Your task to perform on an android device: Open calendar and show me the fourth week of next month Image 0: 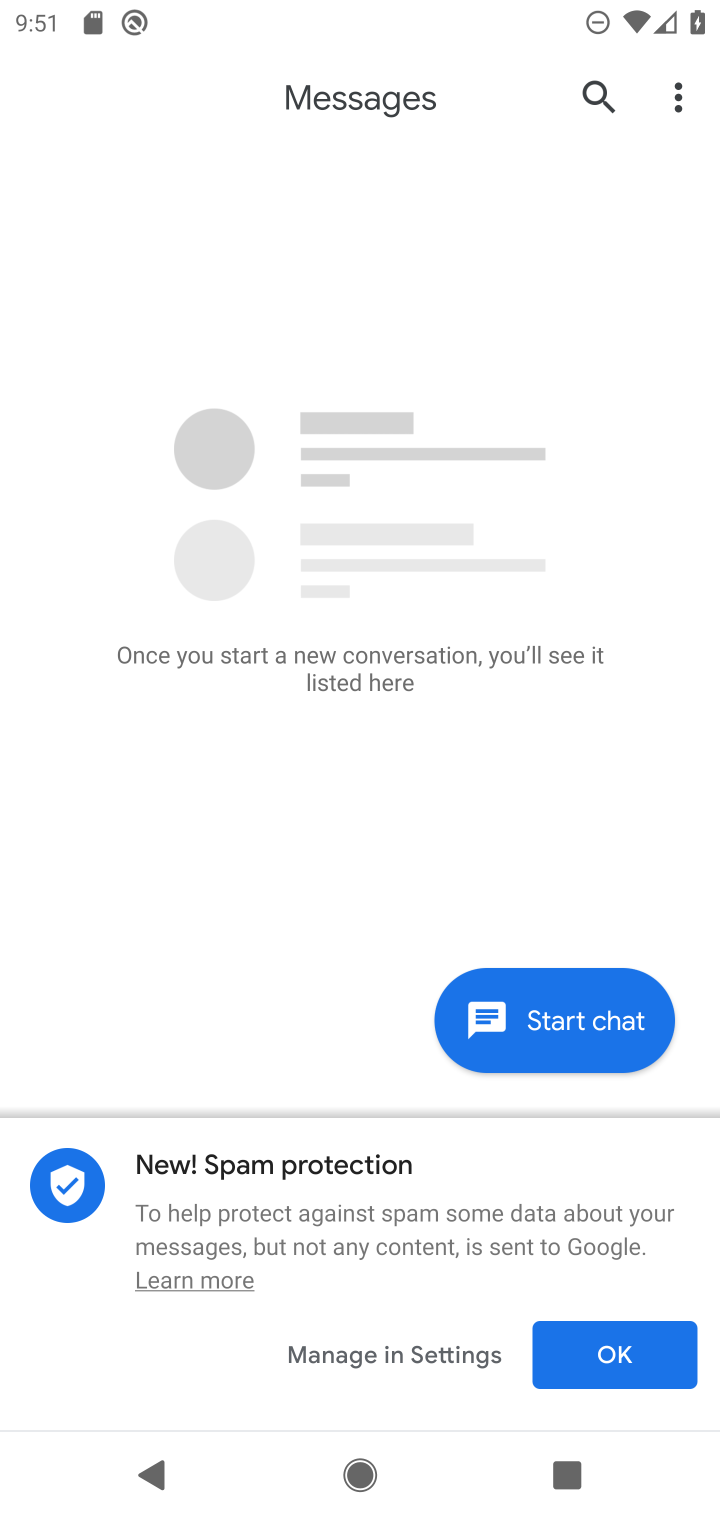
Step 0: press home button
Your task to perform on an android device: Open calendar and show me the fourth week of next month Image 1: 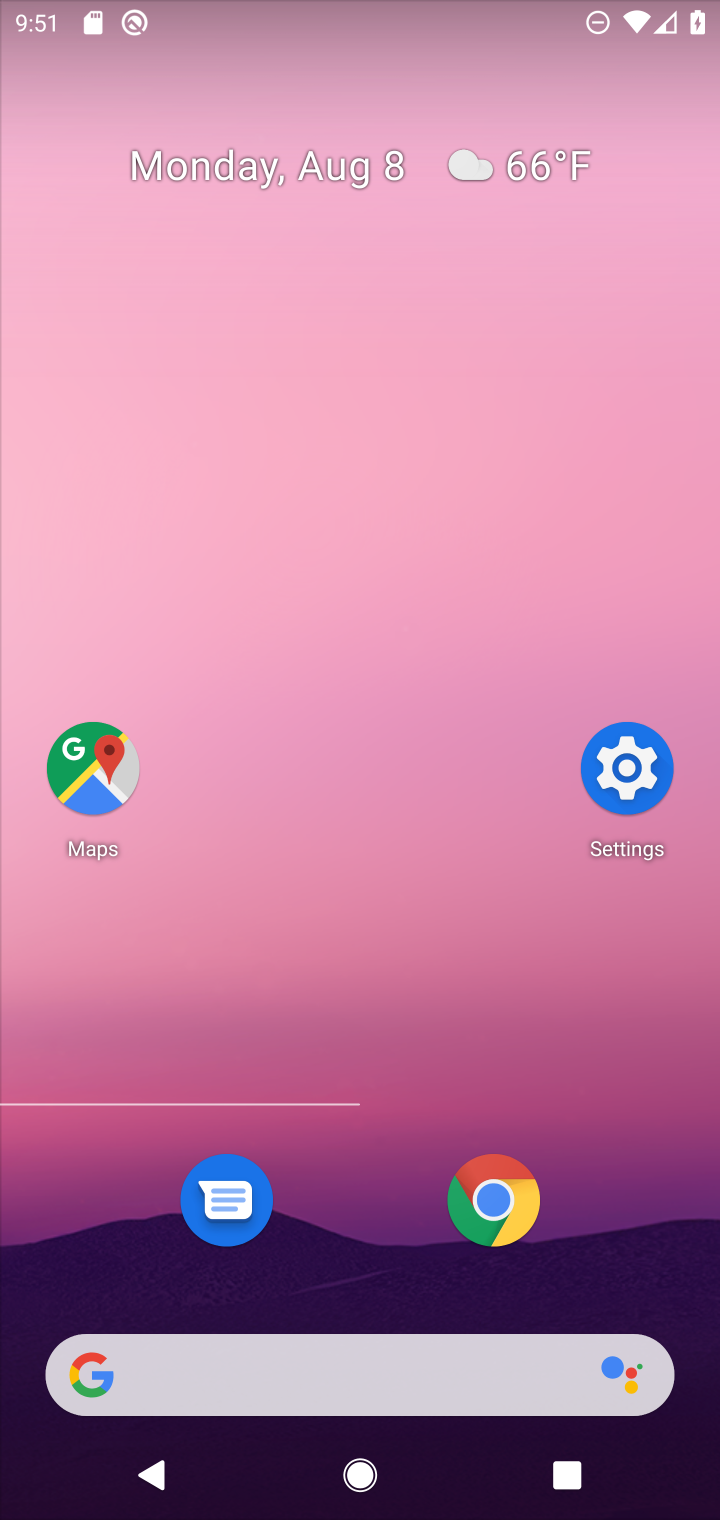
Step 1: drag from (330, 1156) to (566, 268)
Your task to perform on an android device: Open calendar and show me the fourth week of next month Image 2: 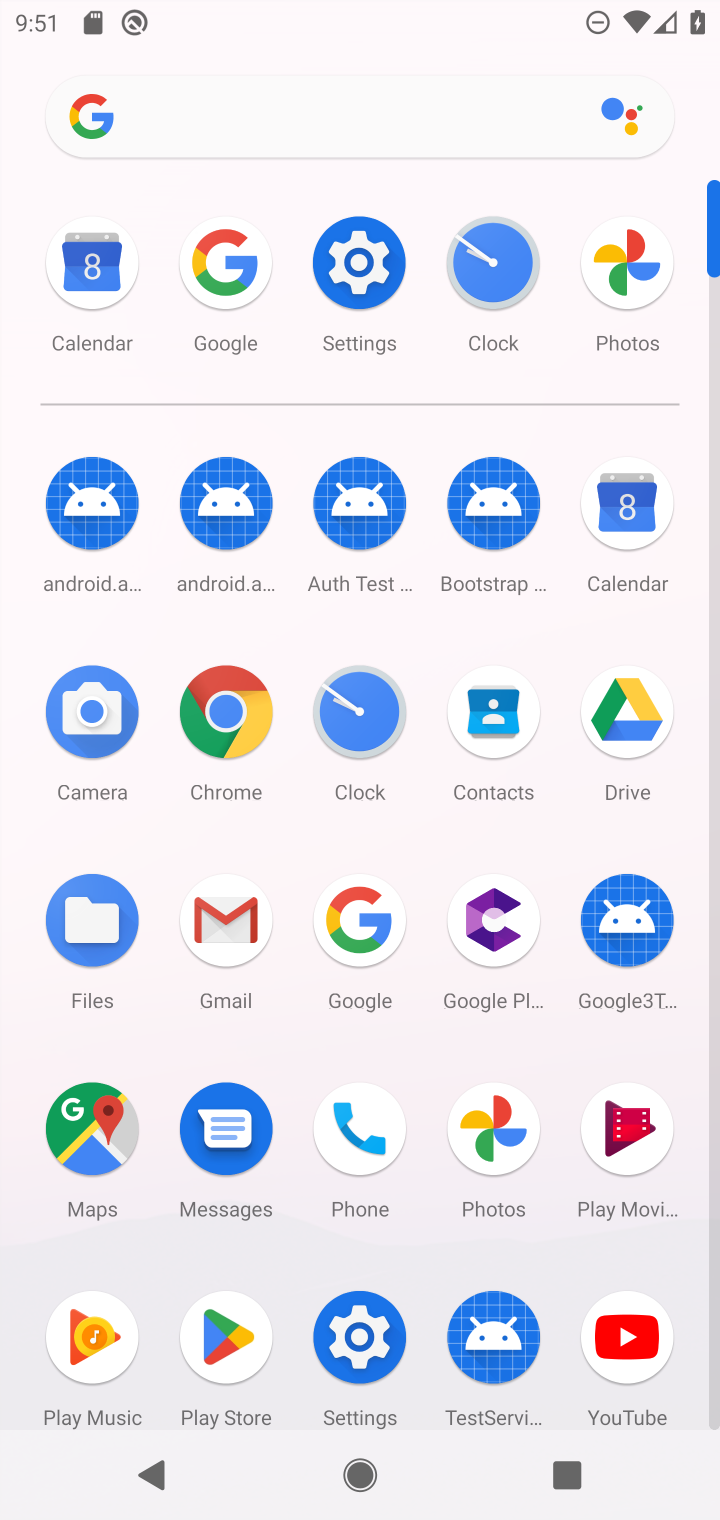
Step 2: click (94, 248)
Your task to perform on an android device: Open calendar and show me the fourth week of next month Image 3: 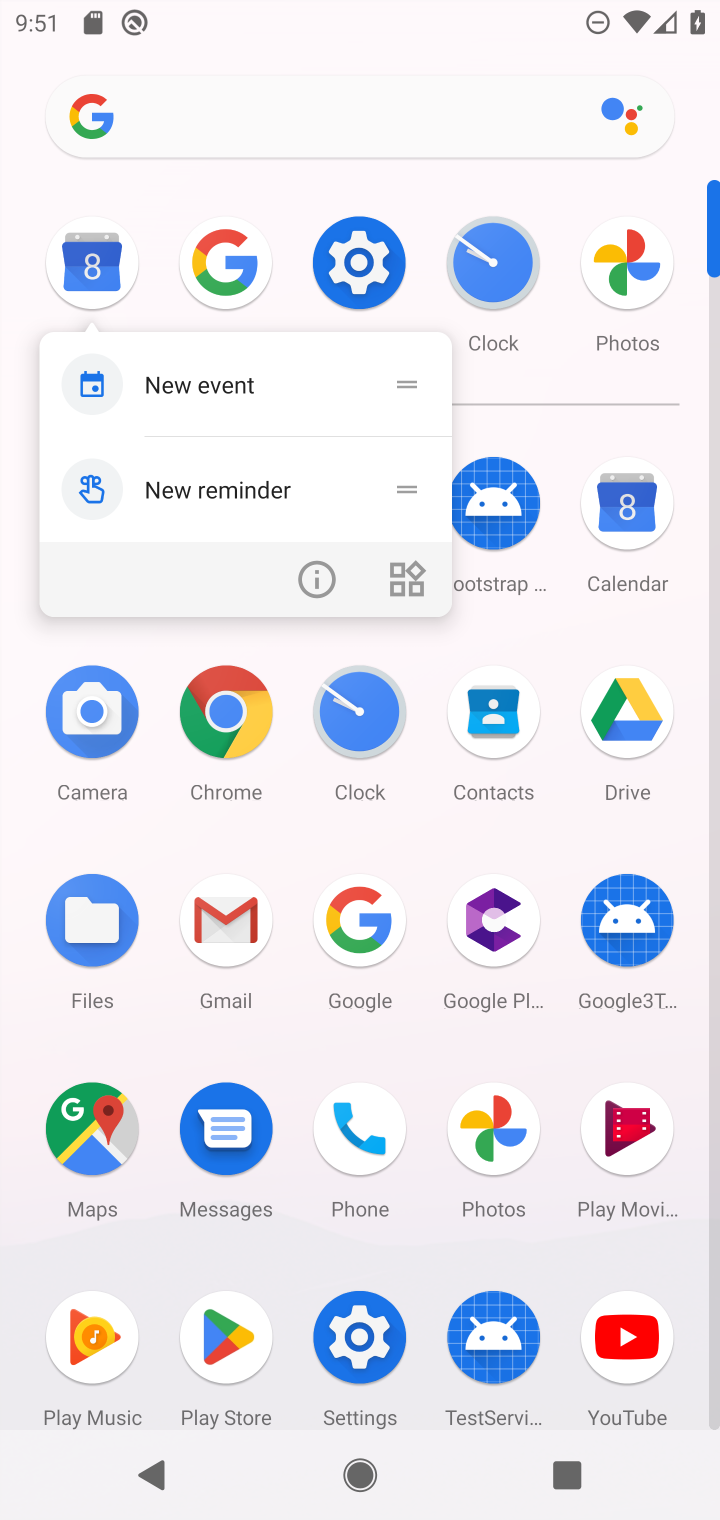
Step 3: click (92, 267)
Your task to perform on an android device: Open calendar and show me the fourth week of next month Image 4: 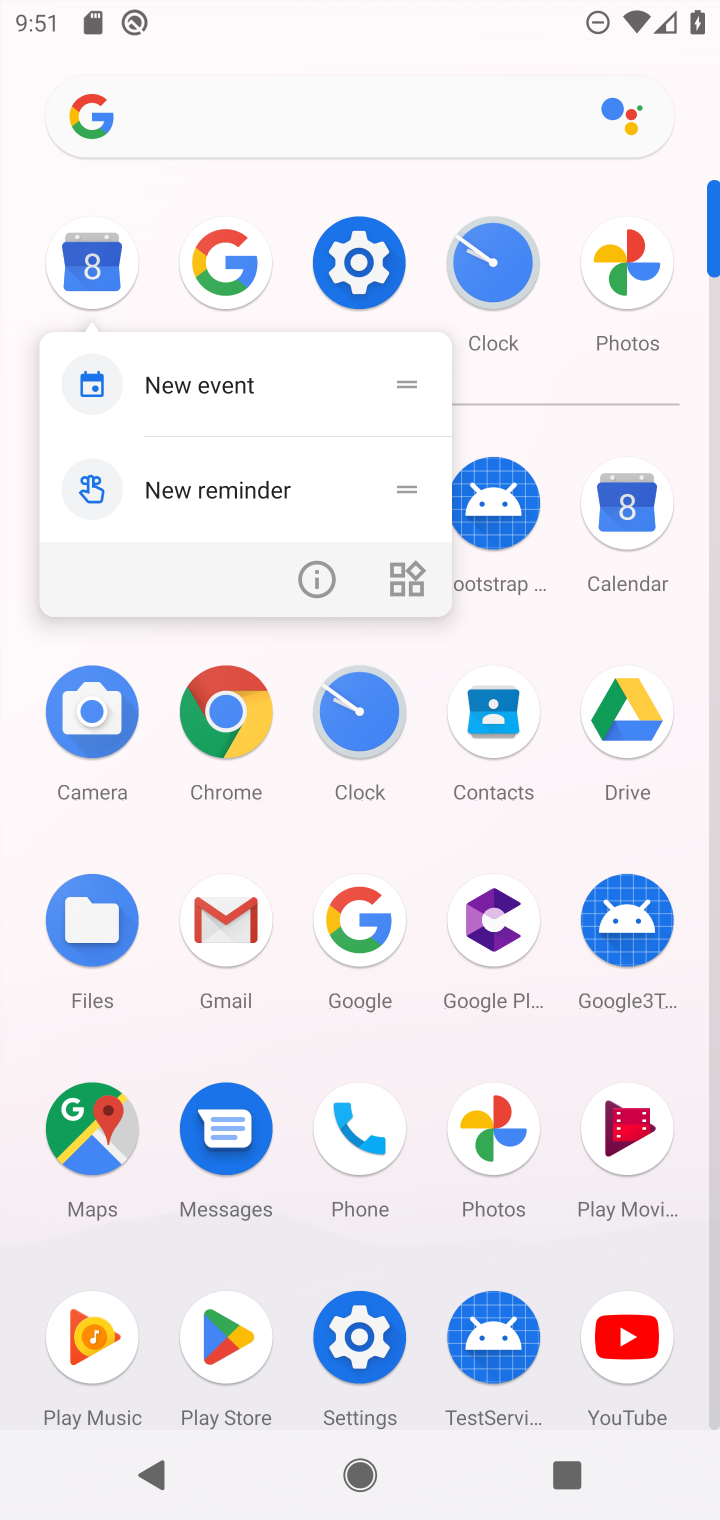
Step 4: click (87, 267)
Your task to perform on an android device: Open calendar and show me the fourth week of next month Image 5: 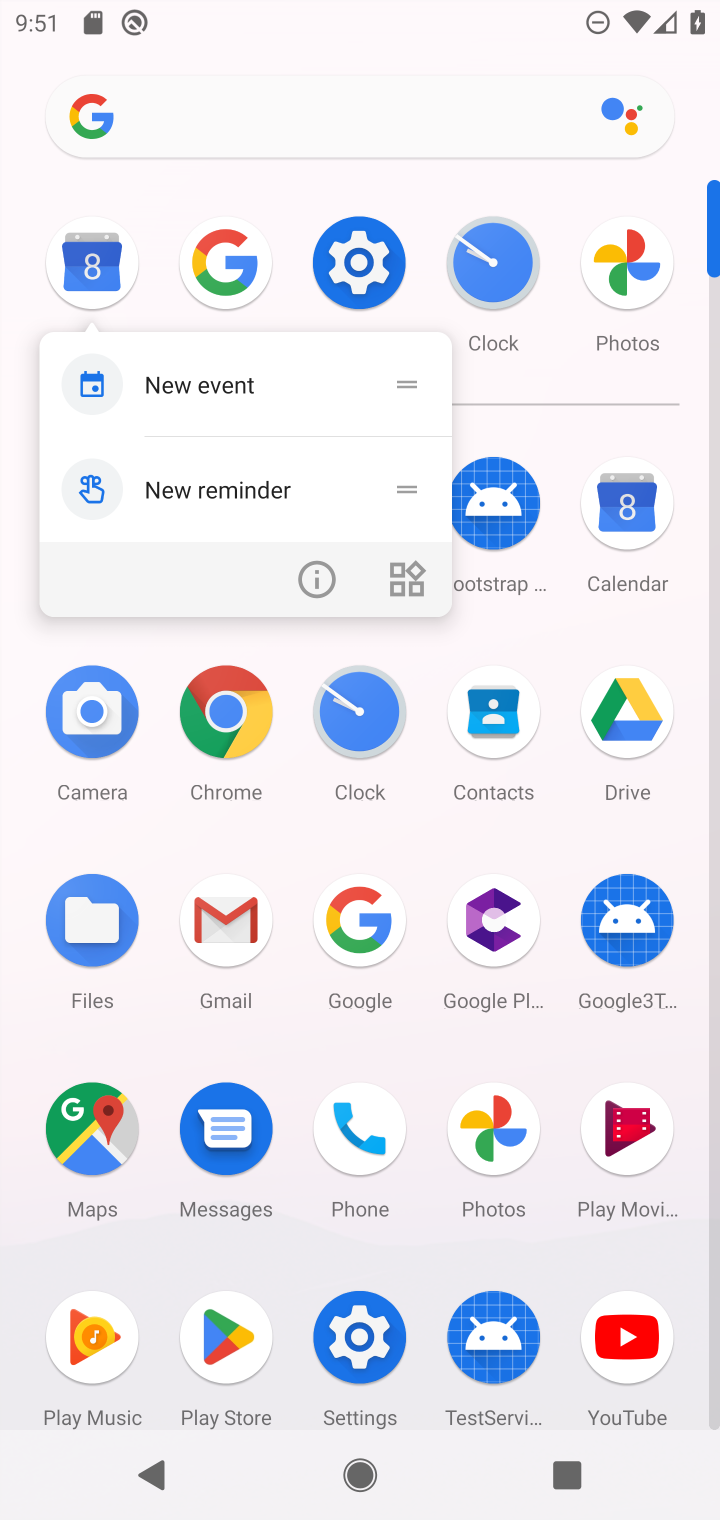
Step 5: click (87, 274)
Your task to perform on an android device: Open calendar and show me the fourth week of next month Image 6: 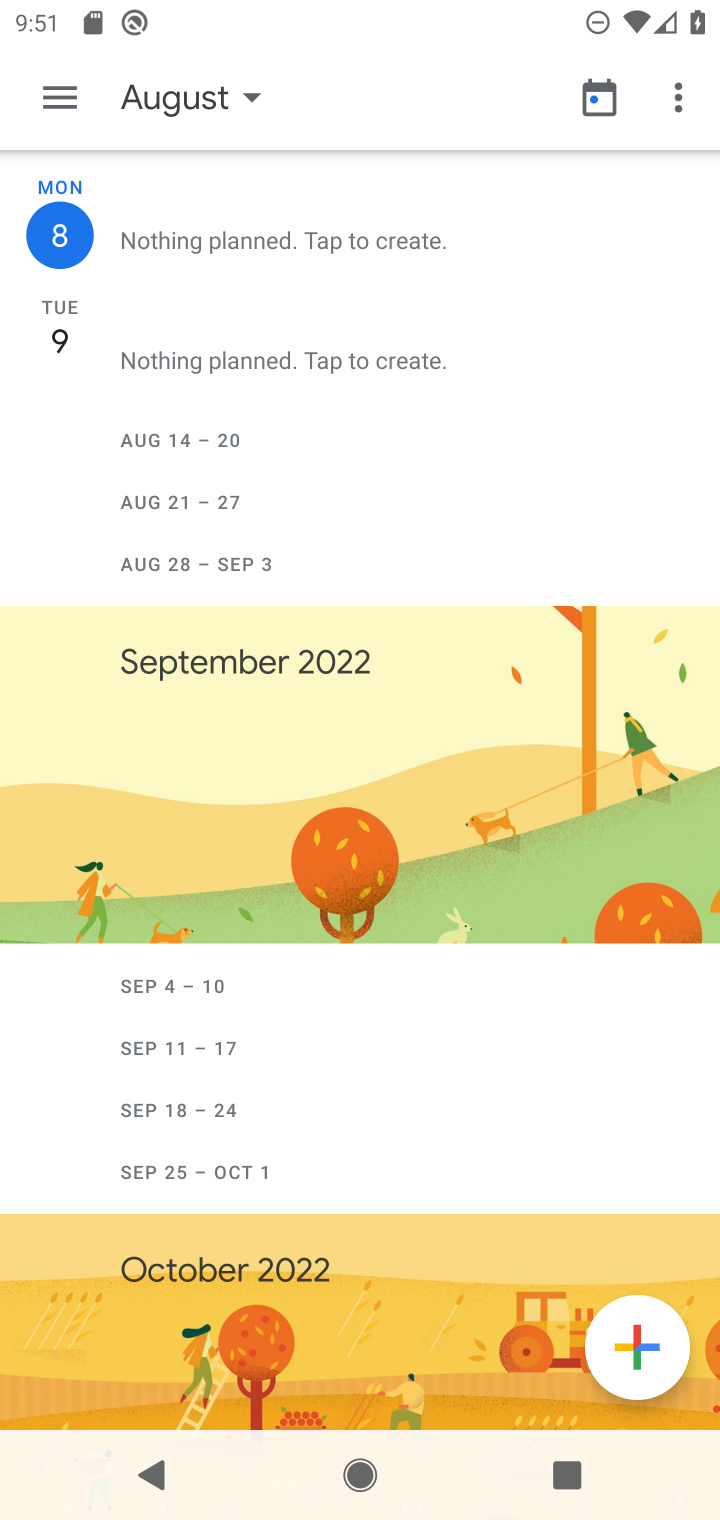
Step 6: click (160, 101)
Your task to perform on an android device: Open calendar and show me the fourth week of next month Image 7: 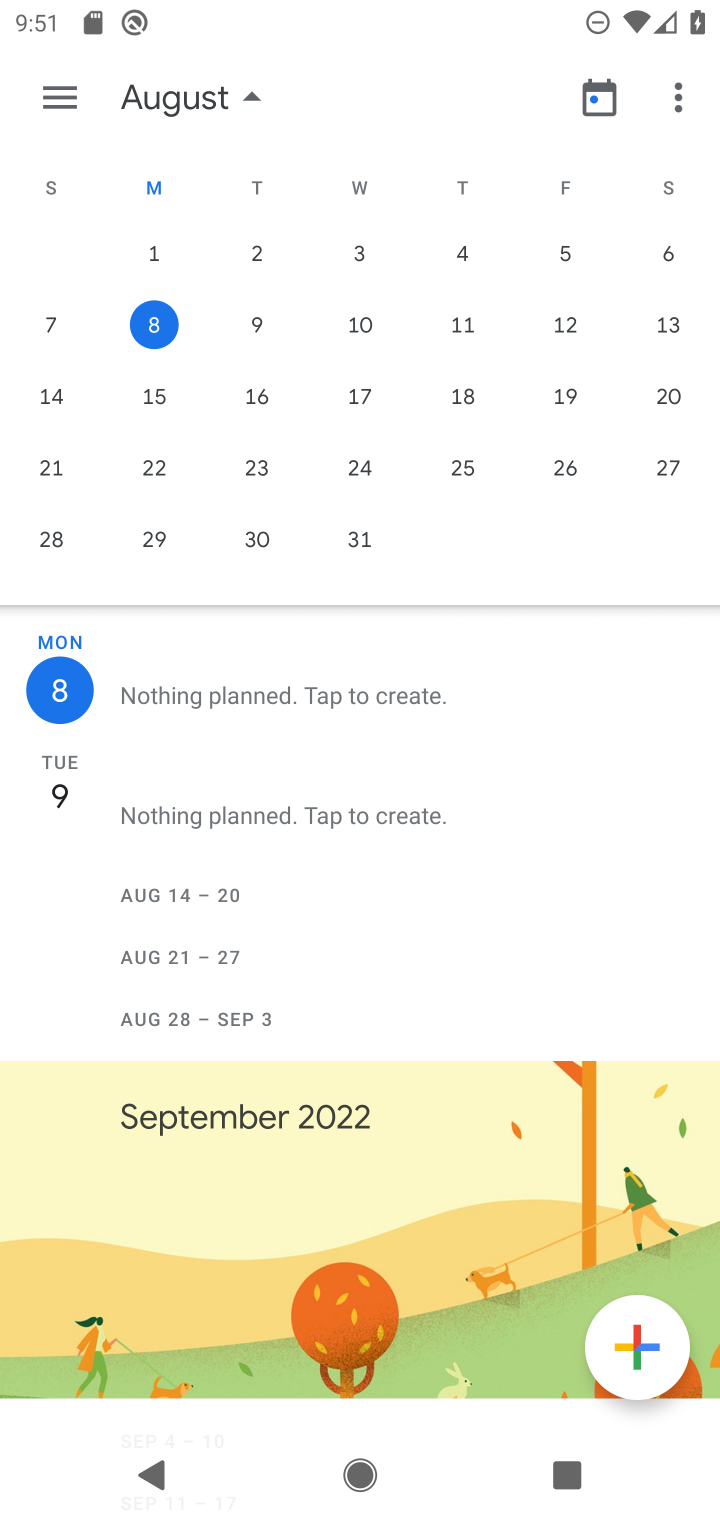
Step 7: drag from (101, 393) to (16, 449)
Your task to perform on an android device: Open calendar and show me the fourth week of next month Image 8: 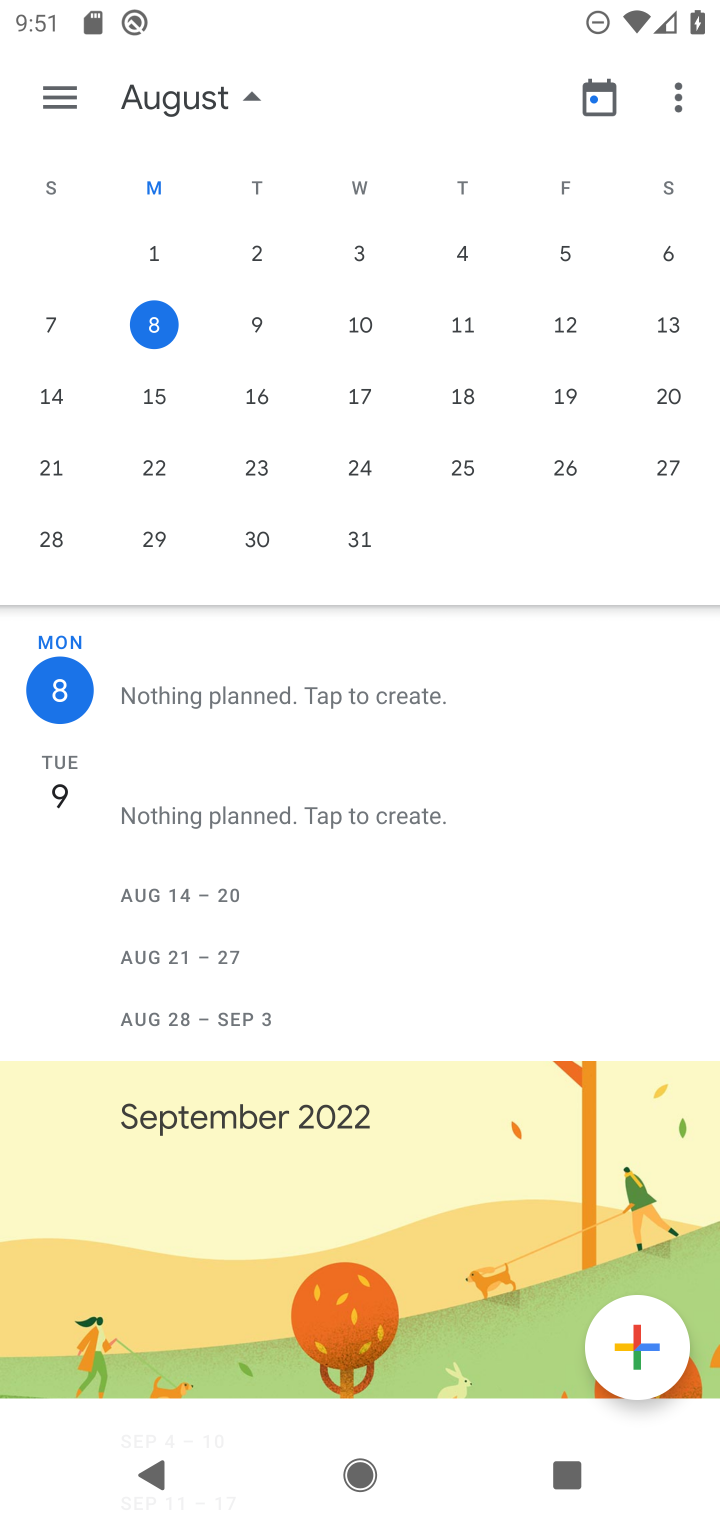
Step 8: drag from (662, 349) to (1, 398)
Your task to perform on an android device: Open calendar and show me the fourth week of next month Image 9: 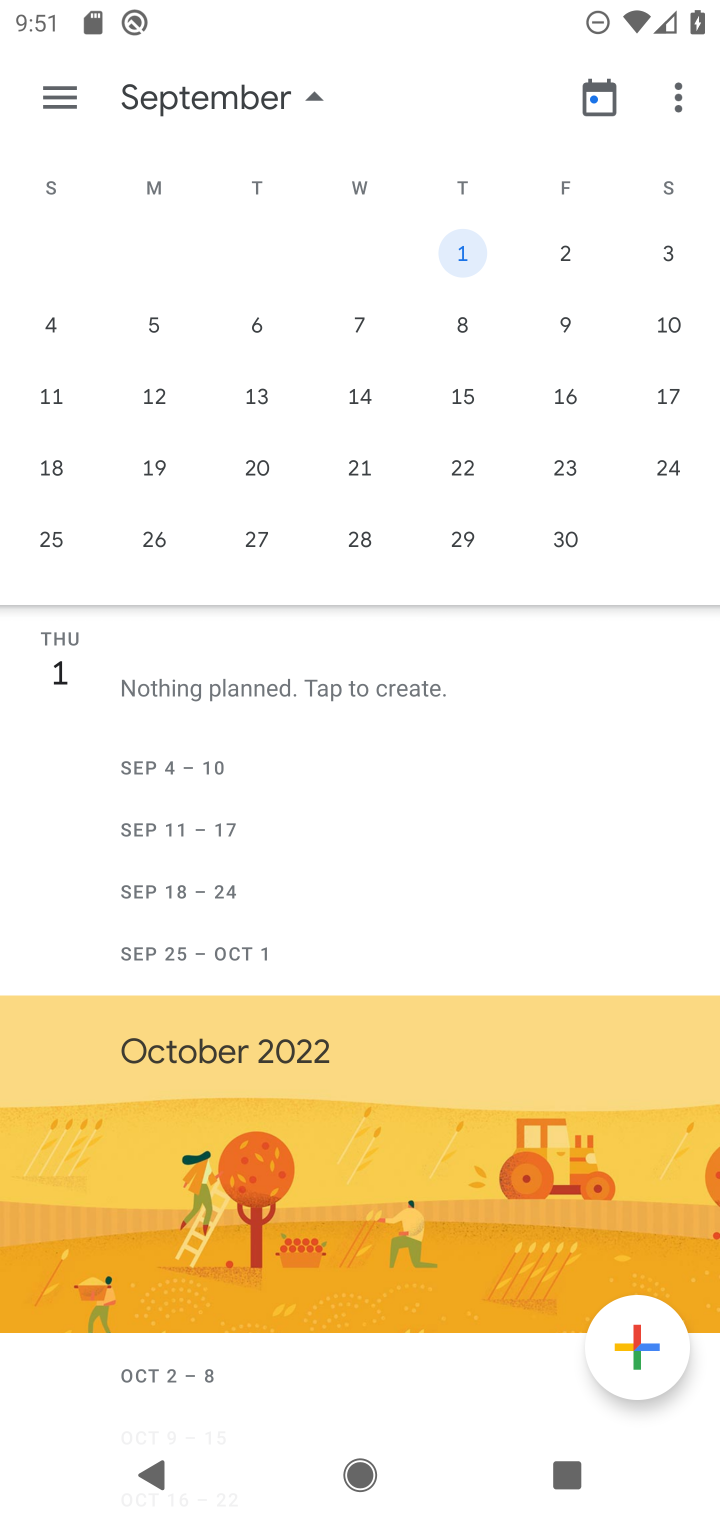
Step 9: click (48, 456)
Your task to perform on an android device: Open calendar and show me the fourth week of next month Image 10: 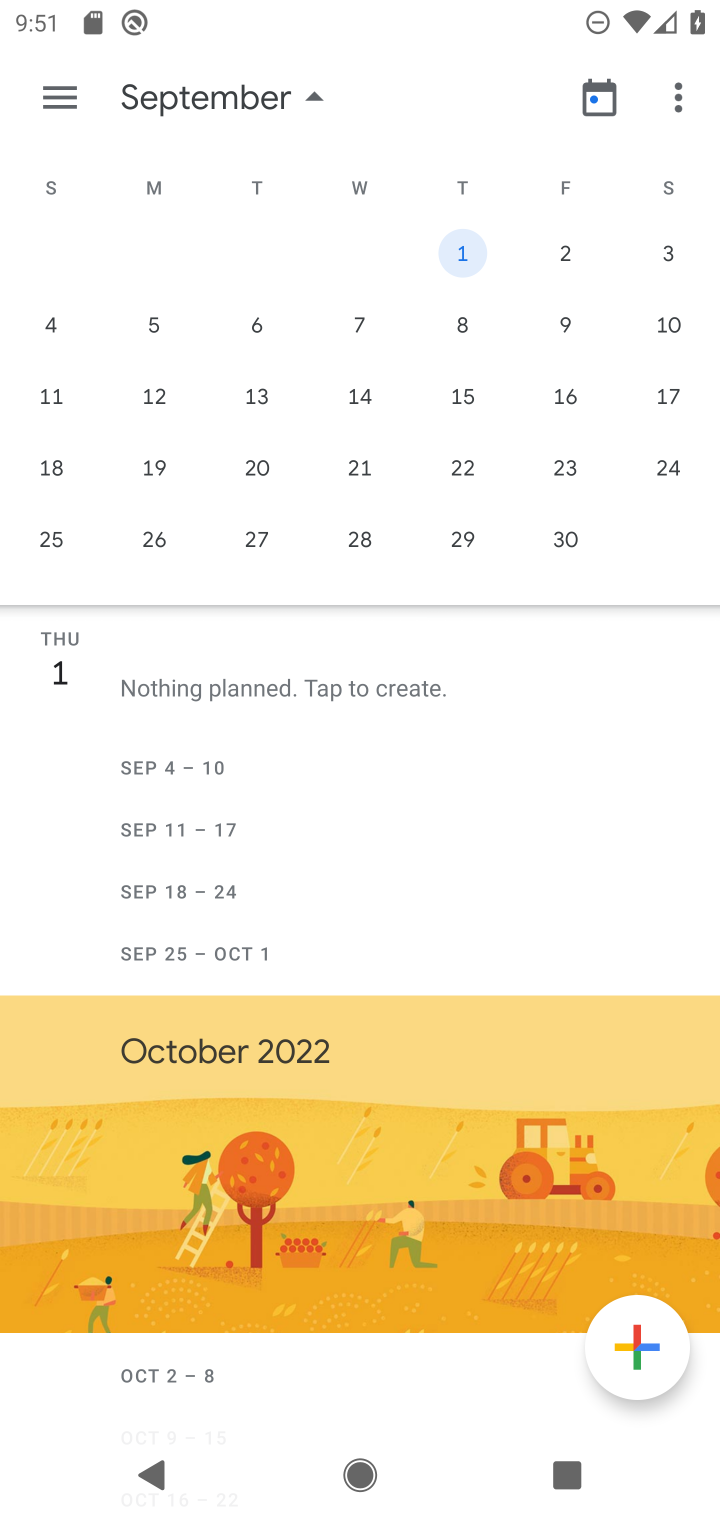
Step 10: click (73, 465)
Your task to perform on an android device: Open calendar and show me the fourth week of next month Image 11: 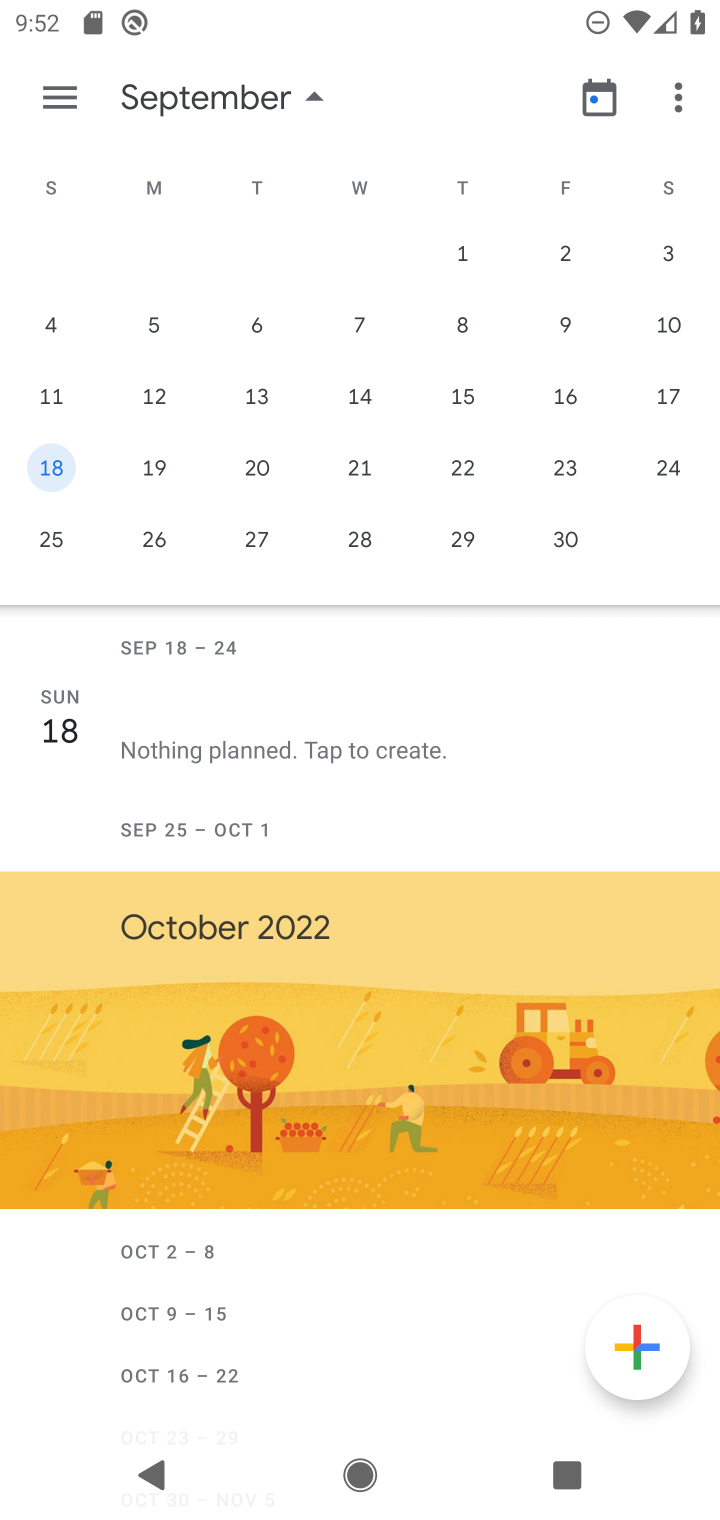
Step 11: click (50, 86)
Your task to perform on an android device: Open calendar and show me the fourth week of next month Image 12: 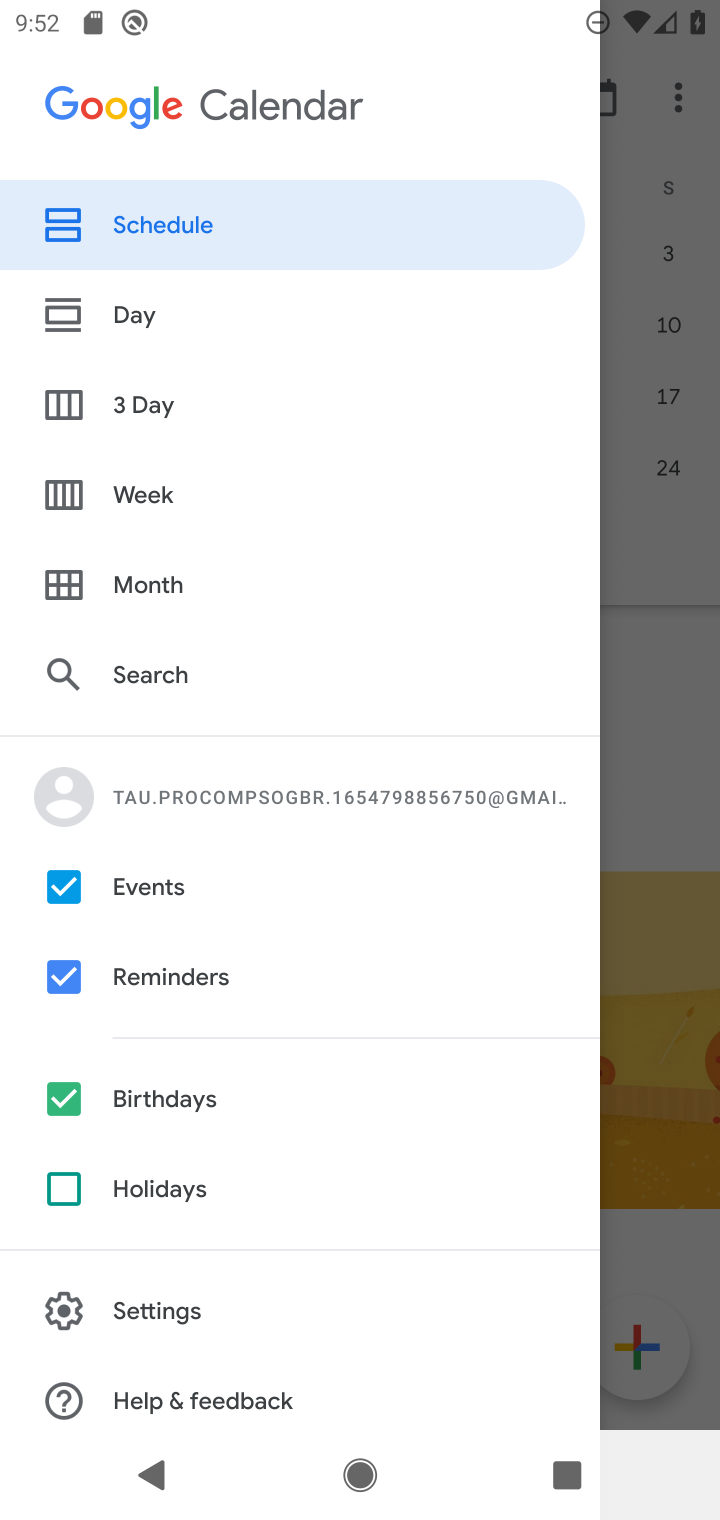
Step 12: click (161, 477)
Your task to perform on an android device: Open calendar and show me the fourth week of next month Image 13: 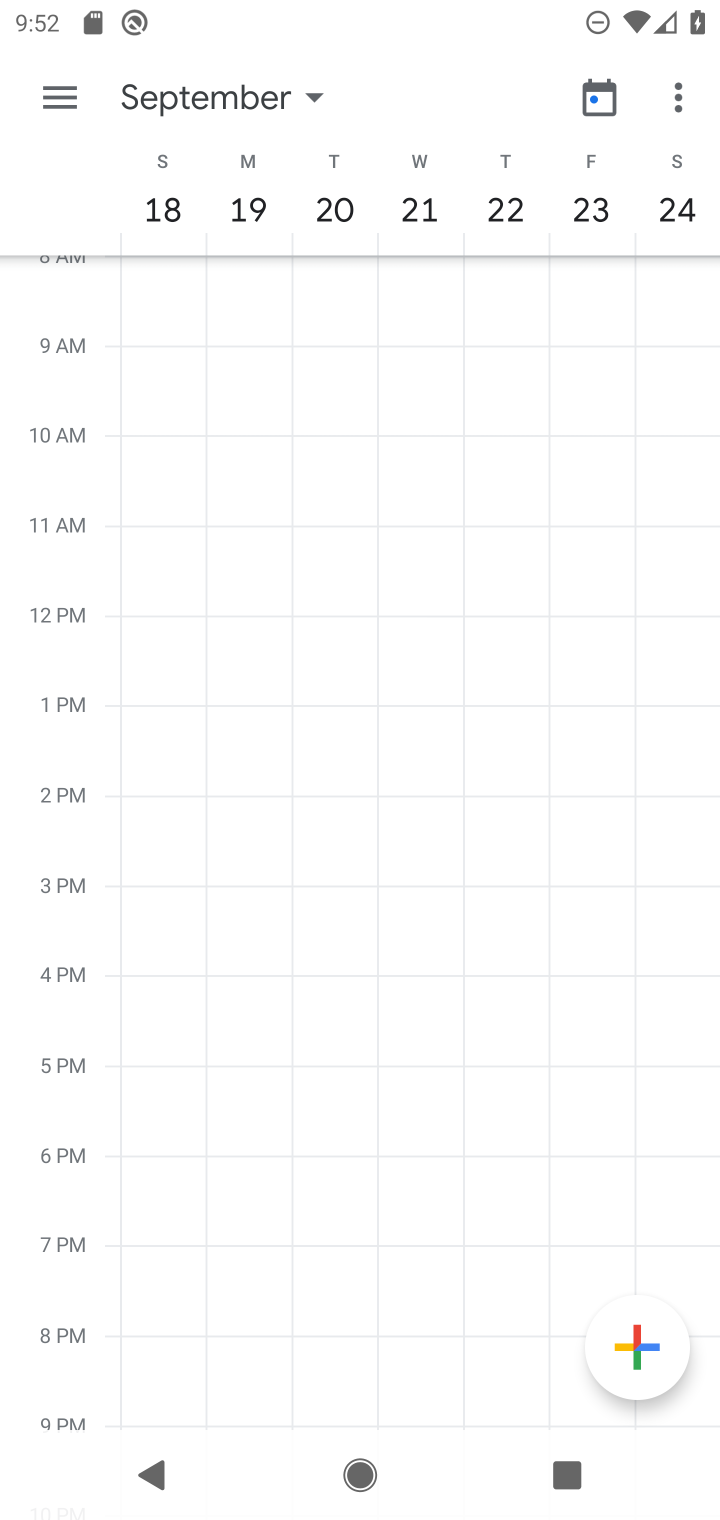
Step 13: task complete